Your task to perform on an android device: all mails in gmail Image 0: 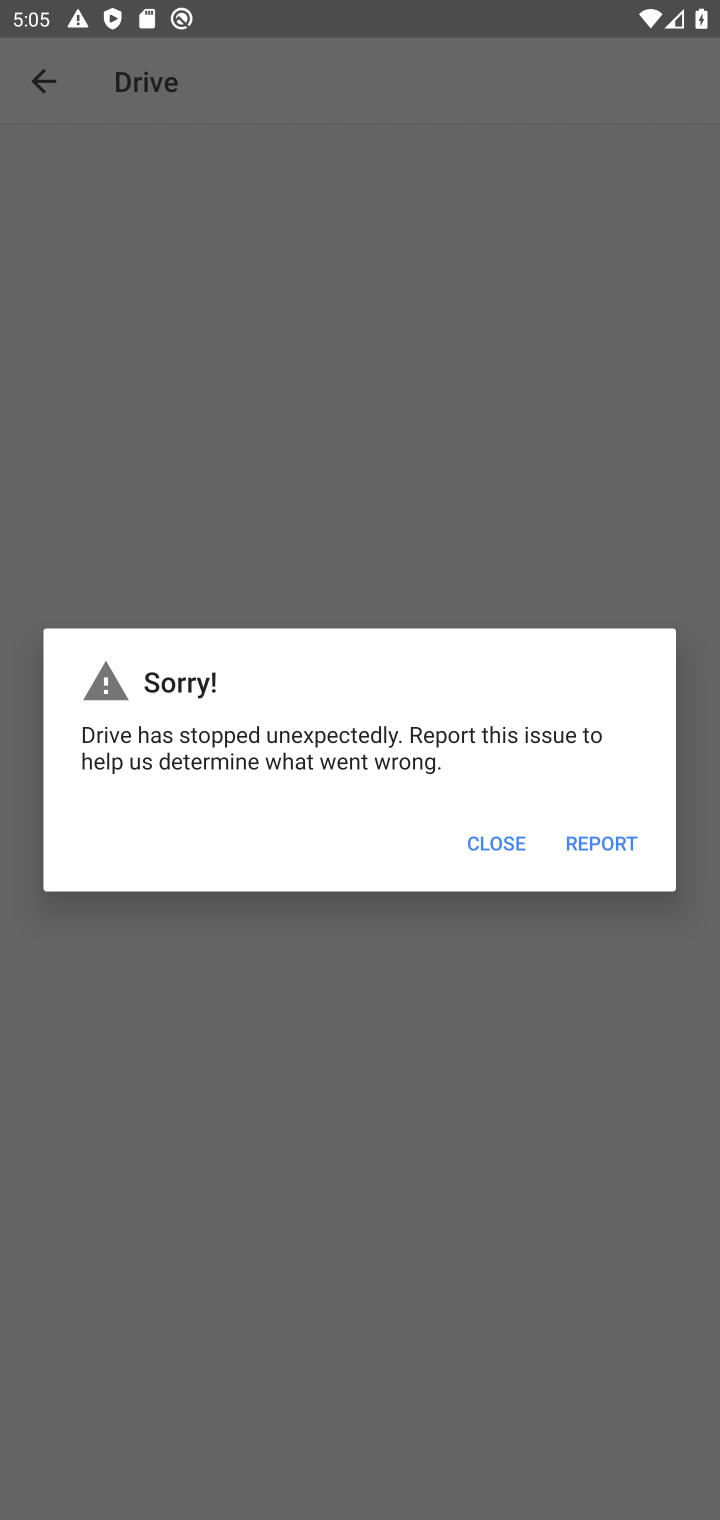
Step 0: press home button
Your task to perform on an android device: all mails in gmail Image 1: 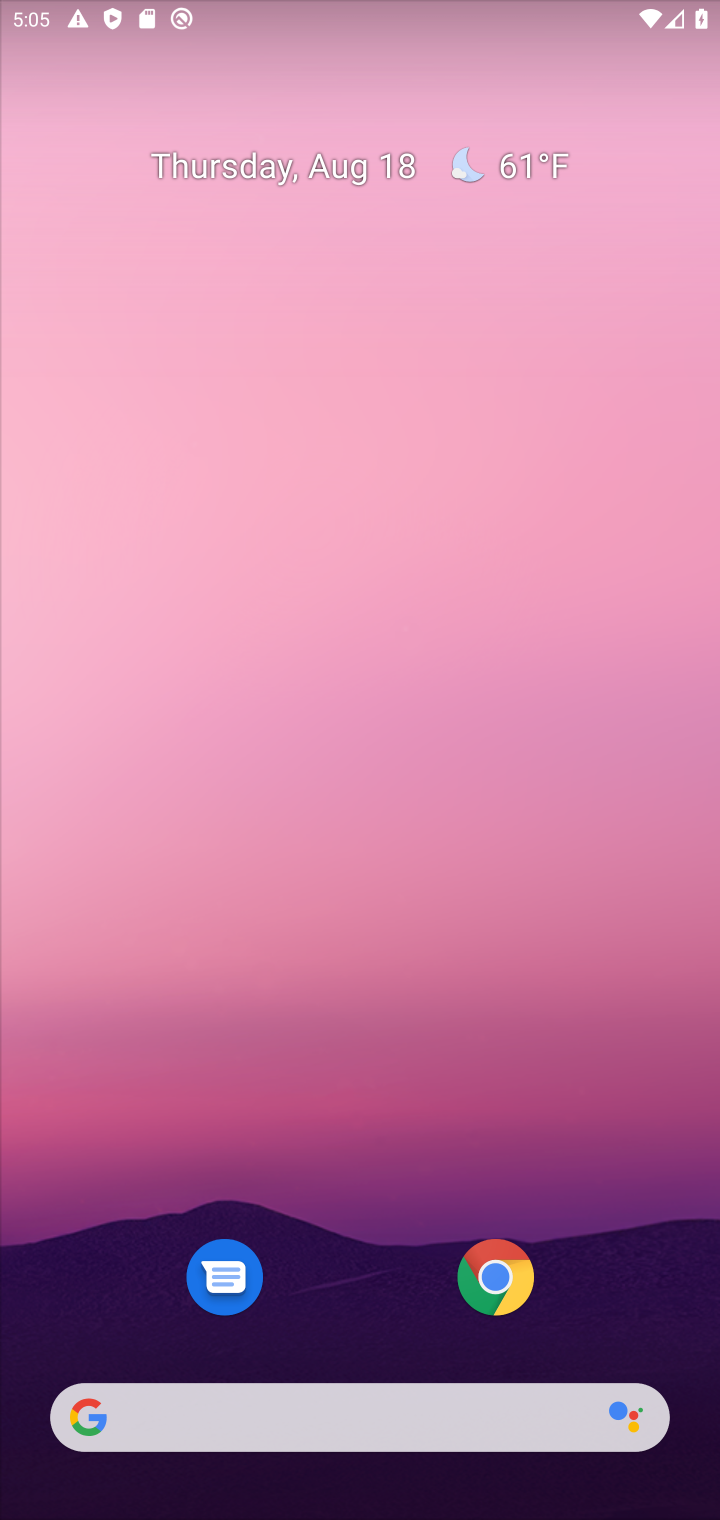
Step 1: task complete